Your task to perform on an android device: Open maps Image 0: 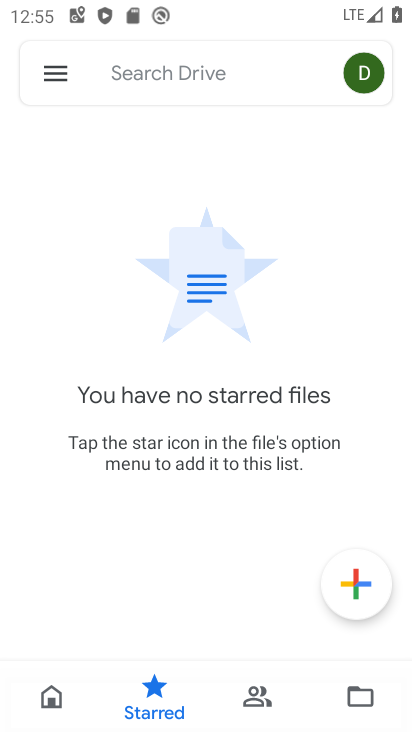
Step 0: press home button
Your task to perform on an android device: Open maps Image 1: 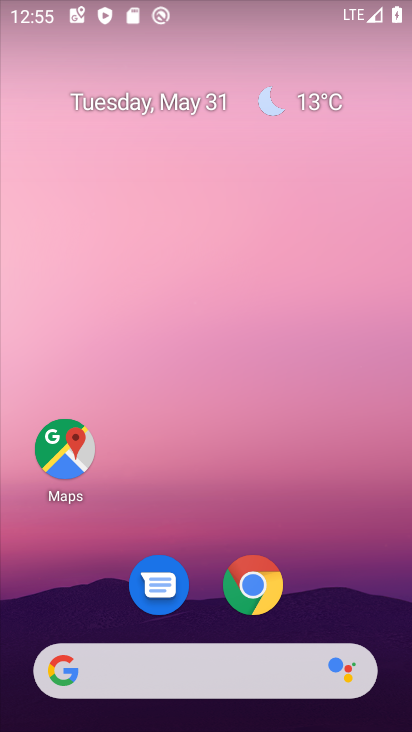
Step 1: click (67, 449)
Your task to perform on an android device: Open maps Image 2: 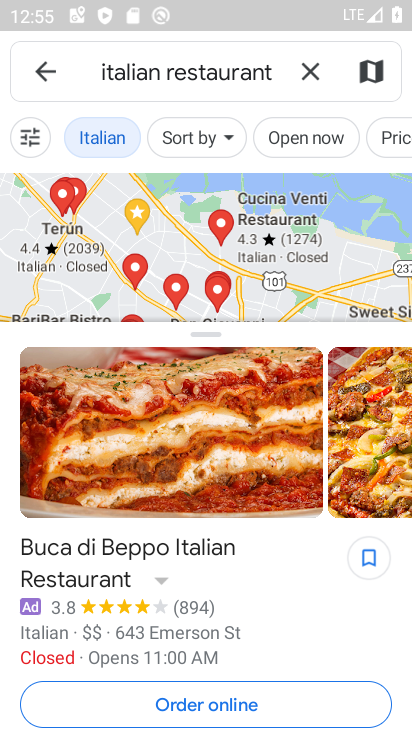
Step 2: task complete